Your task to perform on an android device: toggle sleep mode Image 0: 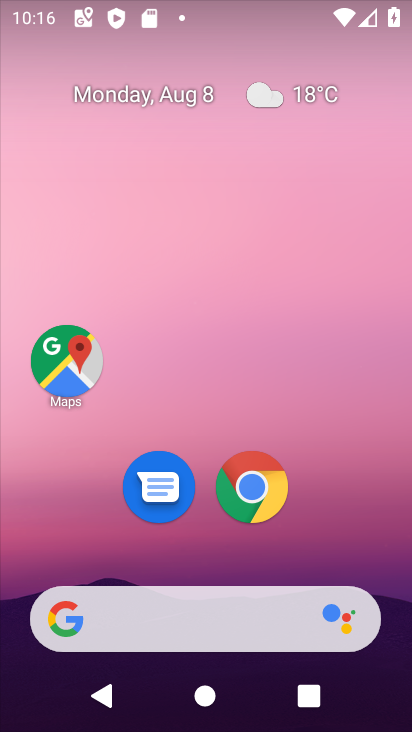
Step 0: drag from (196, 384) to (199, 60)
Your task to perform on an android device: toggle sleep mode Image 1: 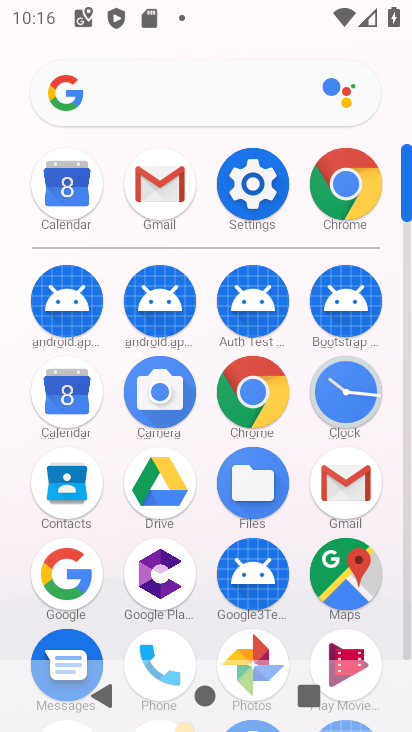
Step 1: click (253, 188)
Your task to perform on an android device: toggle sleep mode Image 2: 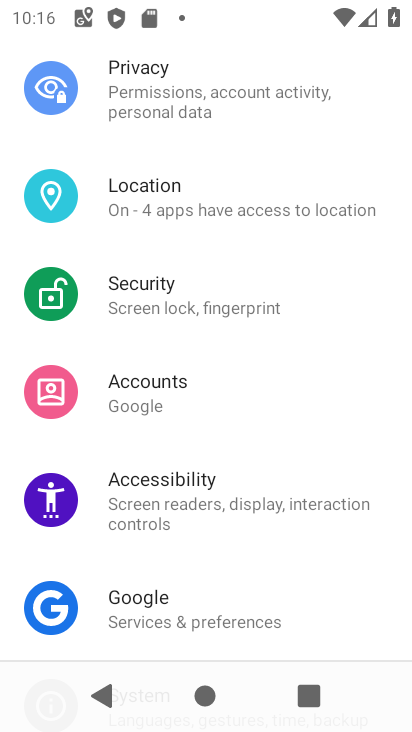
Step 2: drag from (187, 196) to (216, 579)
Your task to perform on an android device: toggle sleep mode Image 3: 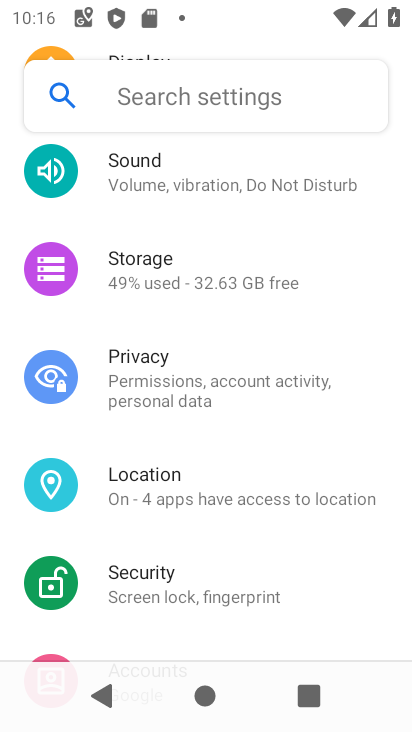
Step 3: drag from (209, 193) to (202, 503)
Your task to perform on an android device: toggle sleep mode Image 4: 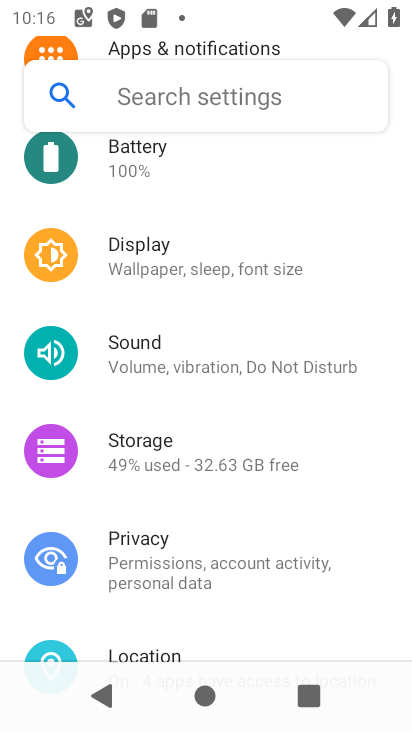
Step 4: click (220, 266)
Your task to perform on an android device: toggle sleep mode Image 5: 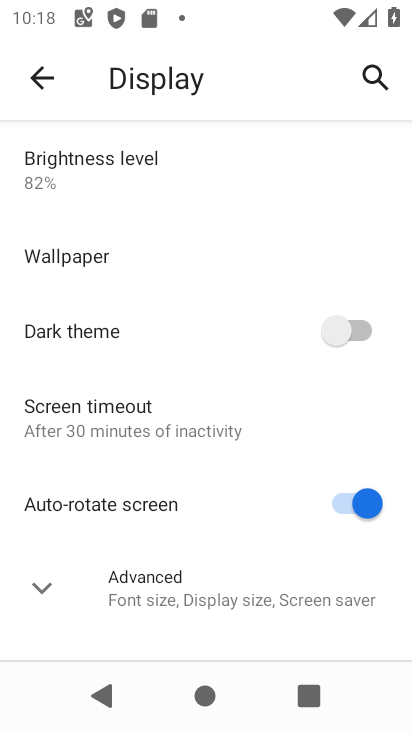
Step 5: click (154, 581)
Your task to perform on an android device: toggle sleep mode Image 6: 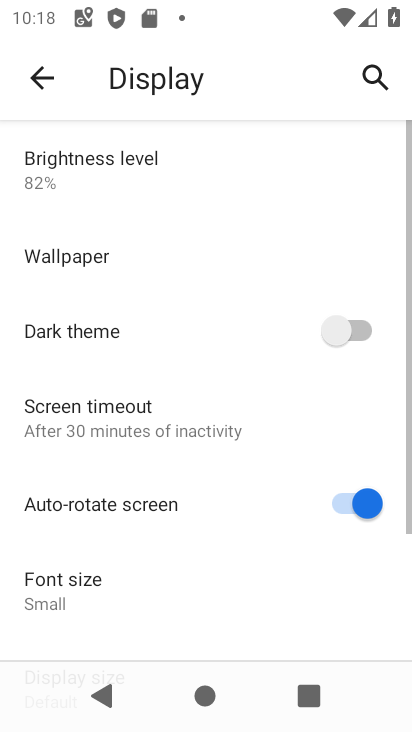
Step 6: task complete